Your task to perform on an android device: How much does a 2 bedroom apartment rent for in Portland? Image 0: 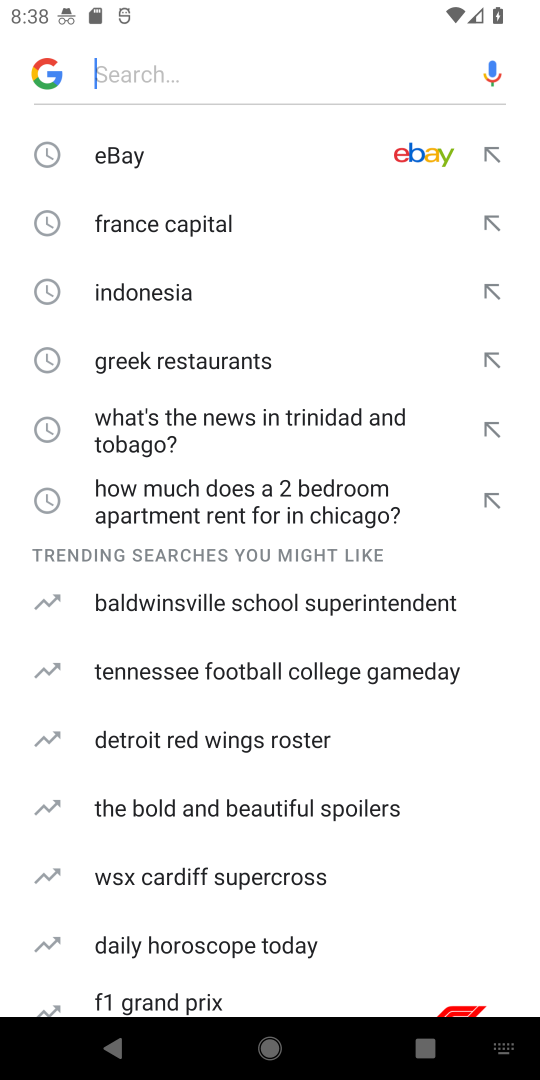
Step 0: press home button
Your task to perform on an android device: How much does a 2 bedroom apartment rent for in Portland? Image 1: 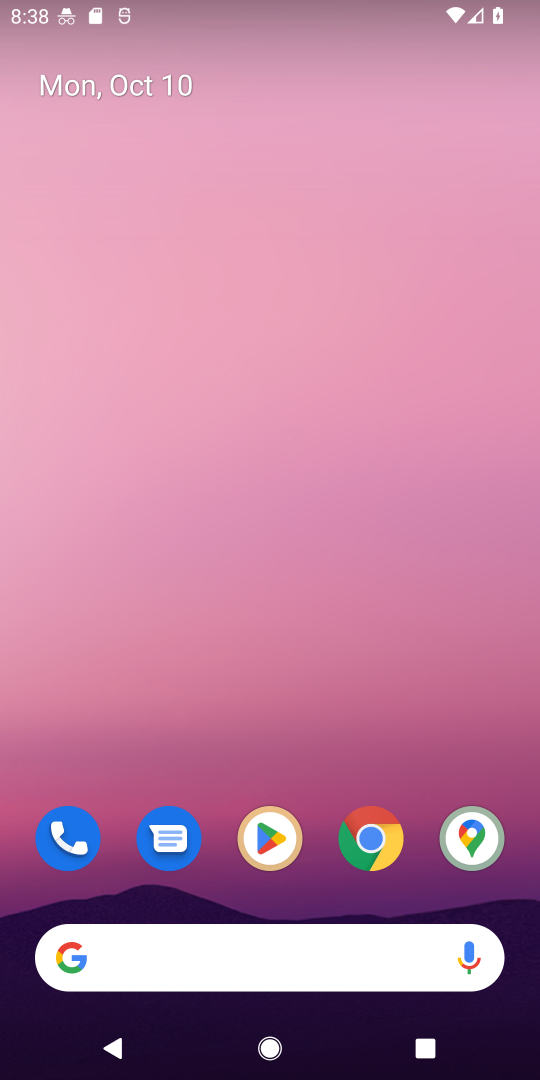
Step 1: click (371, 834)
Your task to perform on an android device: How much does a 2 bedroom apartment rent for in Portland? Image 2: 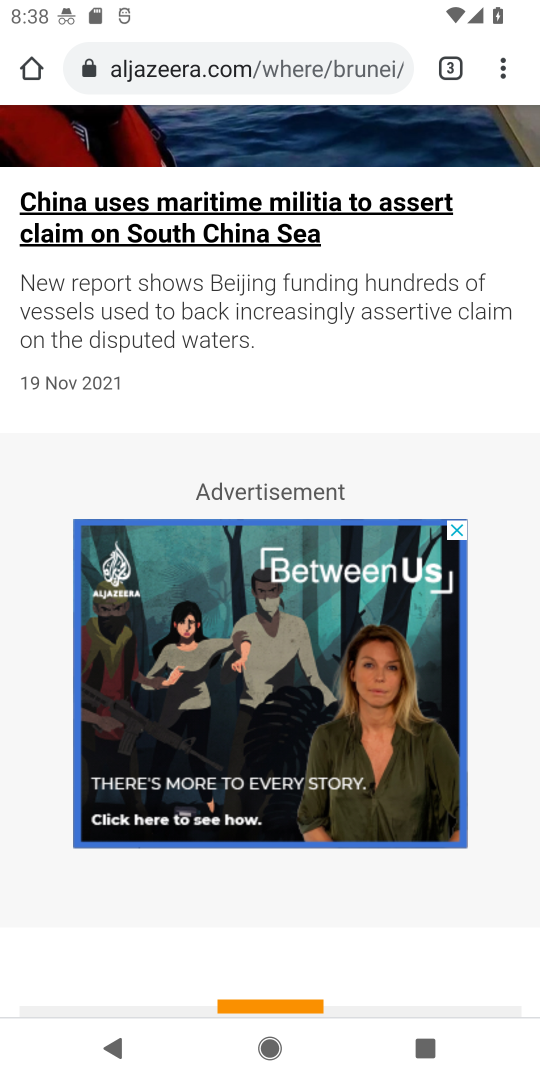
Step 2: click (188, 56)
Your task to perform on an android device: How much does a 2 bedroom apartment rent for in Portland? Image 3: 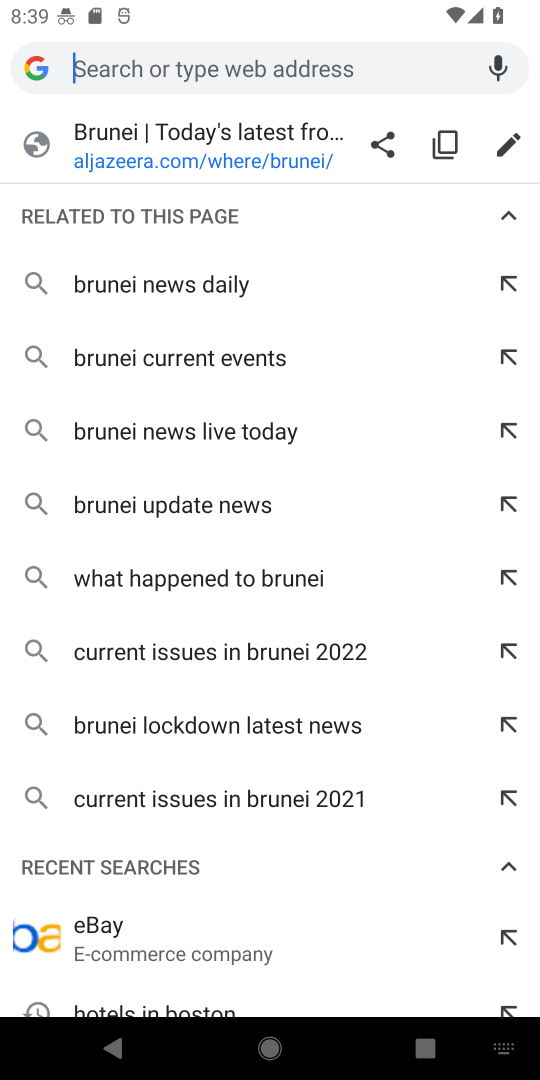
Step 3: type "How much does a 2 bedroom apartment rent for in Portland?"
Your task to perform on an android device: How much does a 2 bedroom apartment rent for in Portland? Image 4: 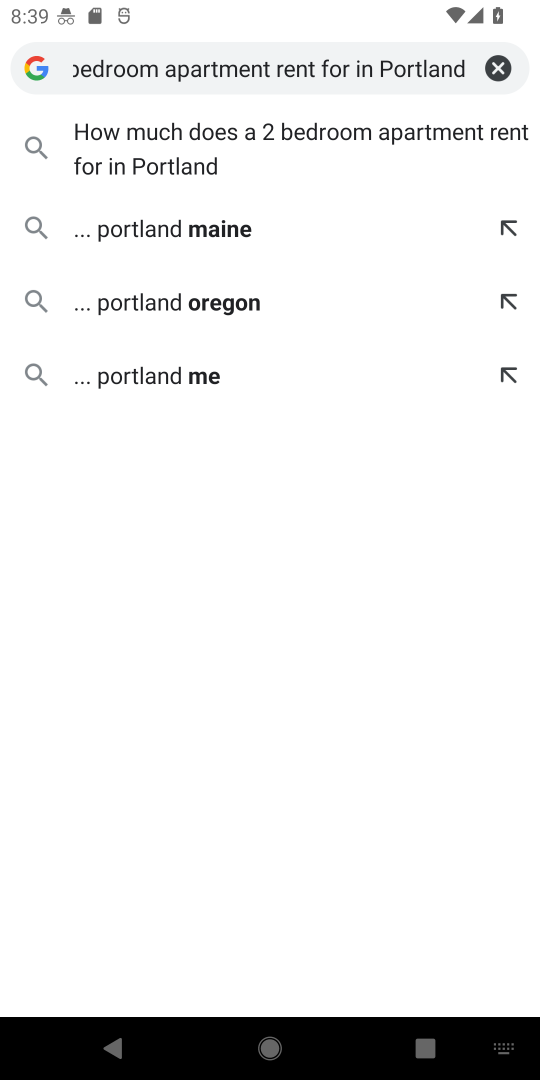
Step 4: click (152, 151)
Your task to perform on an android device: How much does a 2 bedroom apartment rent for in Portland? Image 5: 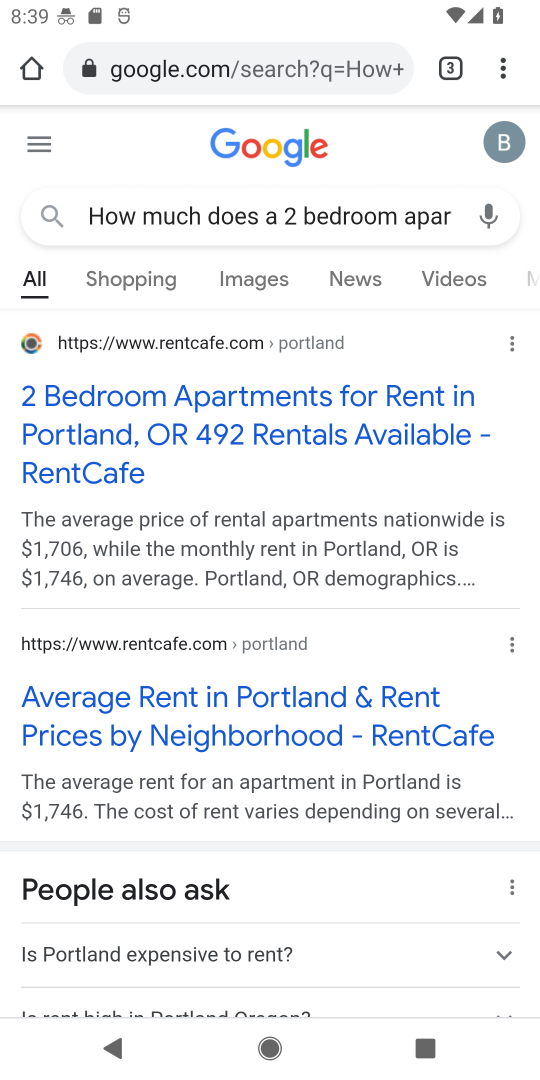
Step 5: click (137, 399)
Your task to perform on an android device: How much does a 2 bedroom apartment rent for in Portland? Image 6: 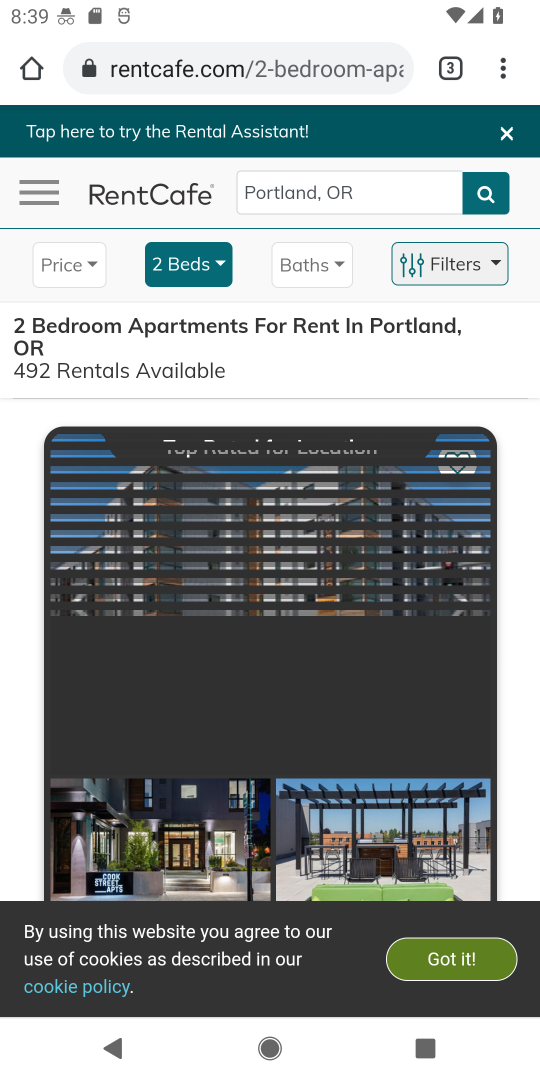
Step 6: task complete